Your task to perform on an android device: set an alarm Image 0: 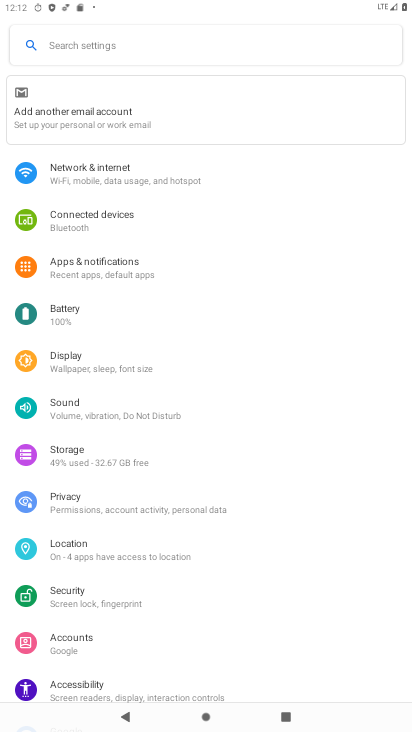
Step 0: press home button
Your task to perform on an android device: set an alarm Image 1: 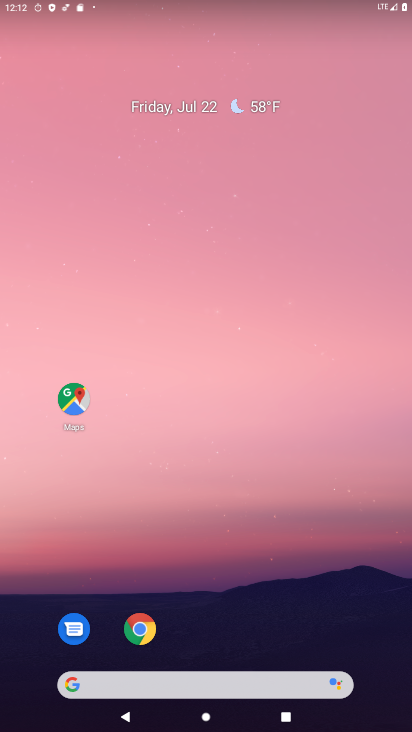
Step 1: drag from (319, 609) to (341, 224)
Your task to perform on an android device: set an alarm Image 2: 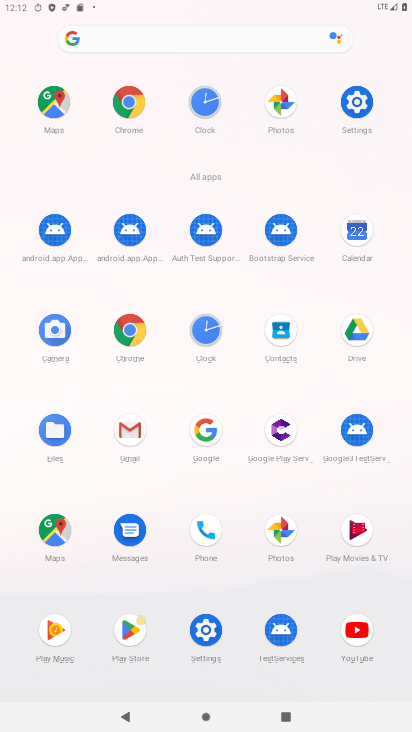
Step 2: click (210, 325)
Your task to perform on an android device: set an alarm Image 3: 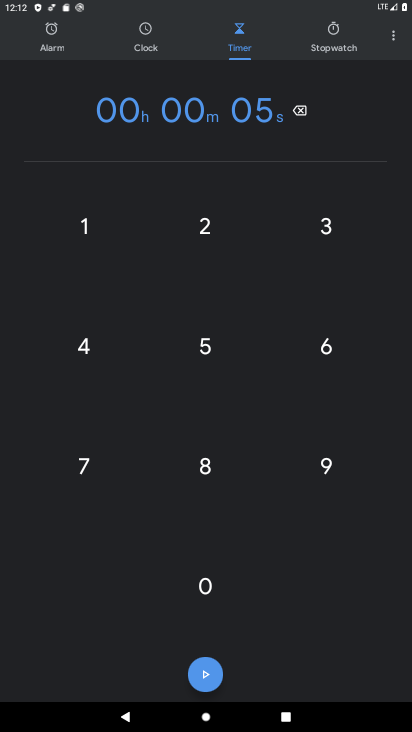
Step 3: click (52, 47)
Your task to perform on an android device: set an alarm Image 4: 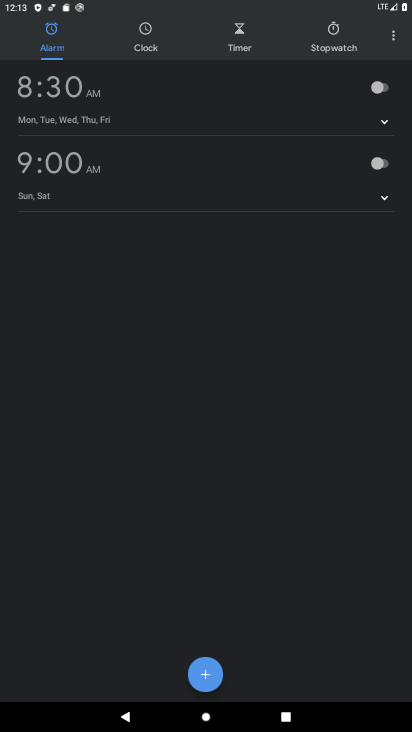
Step 4: click (208, 672)
Your task to perform on an android device: set an alarm Image 5: 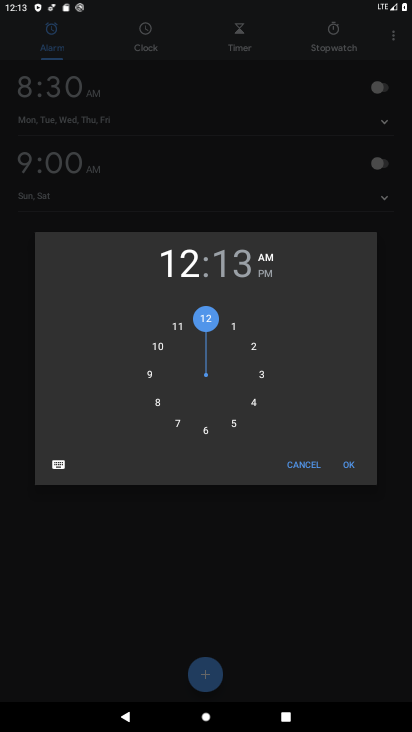
Step 5: click (351, 461)
Your task to perform on an android device: set an alarm Image 6: 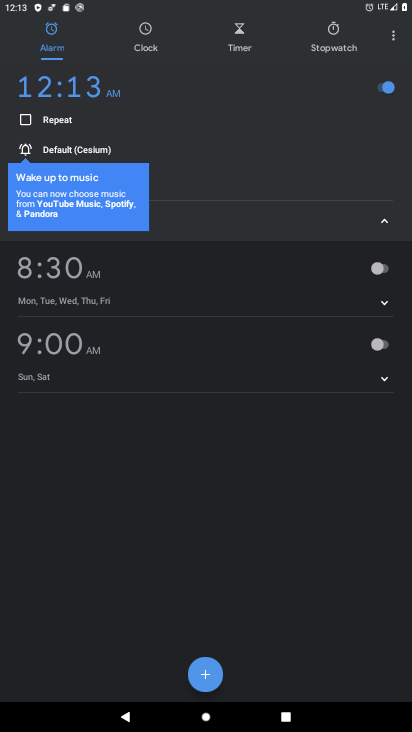
Step 6: task complete